Your task to perform on an android device: Open the stopwatch Image 0: 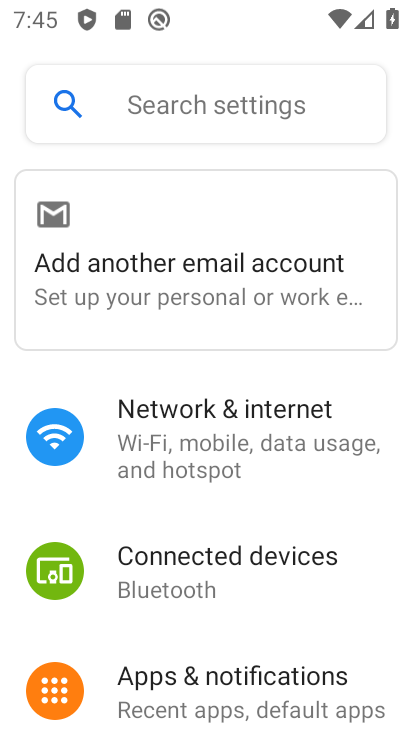
Step 0: press home button
Your task to perform on an android device: Open the stopwatch Image 1: 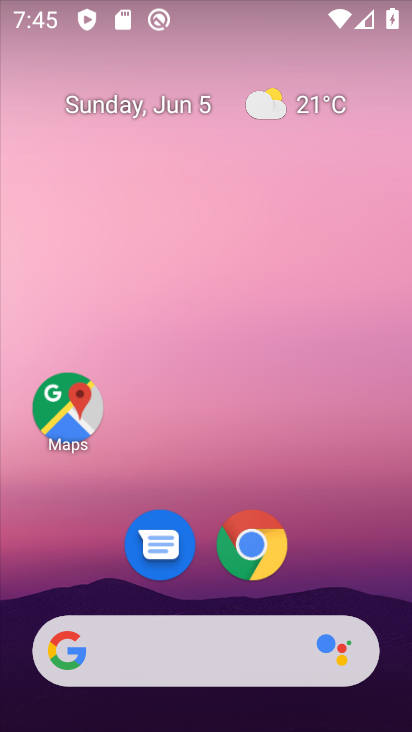
Step 1: drag from (355, 523) to (389, 148)
Your task to perform on an android device: Open the stopwatch Image 2: 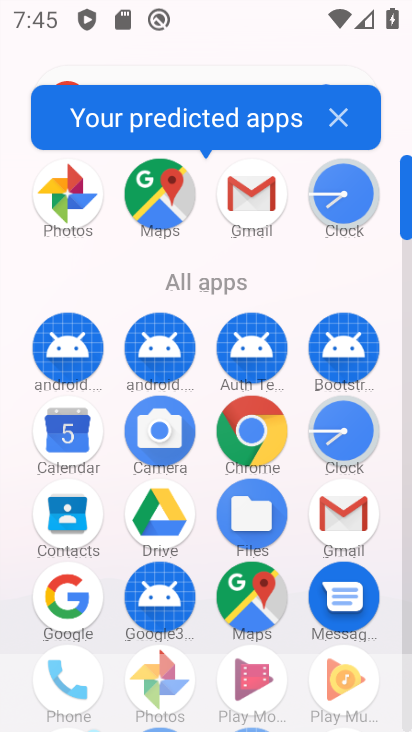
Step 2: click (355, 430)
Your task to perform on an android device: Open the stopwatch Image 3: 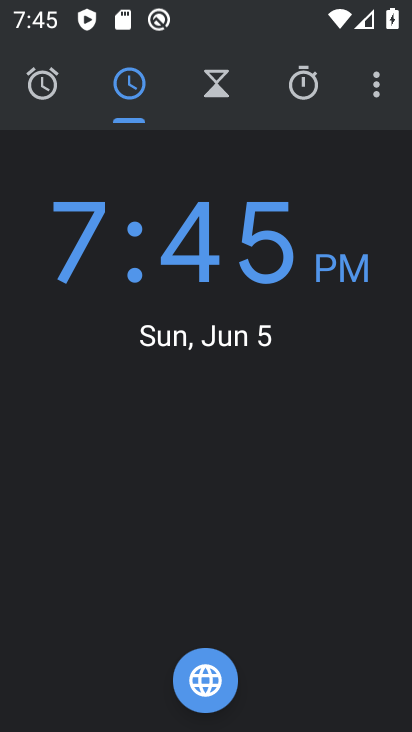
Step 3: click (308, 91)
Your task to perform on an android device: Open the stopwatch Image 4: 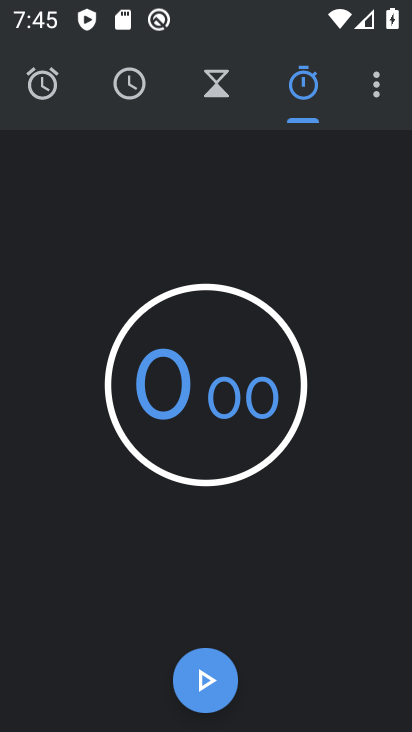
Step 4: task complete